Your task to perform on an android device: Open the calendar and show me this week's events? Image 0: 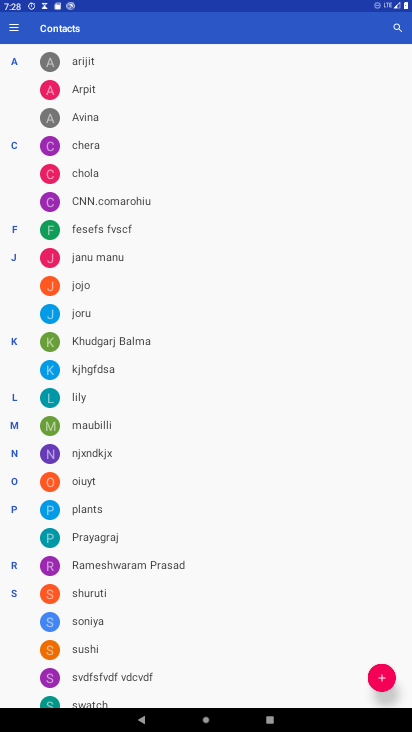
Step 0: press home button
Your task to perform on an android device: Open the calendar and show me this week's events? Image 1: 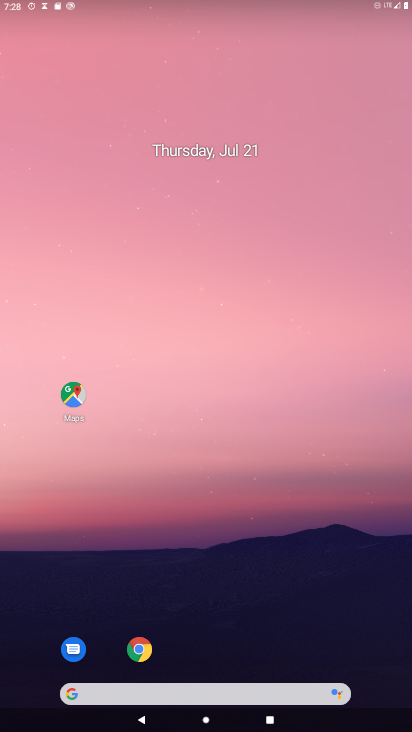
Step 1: drag from (365, 648) to (202, 11)
Your task to perform on an android device: Open the calendar and show me this week's events? Image 2: 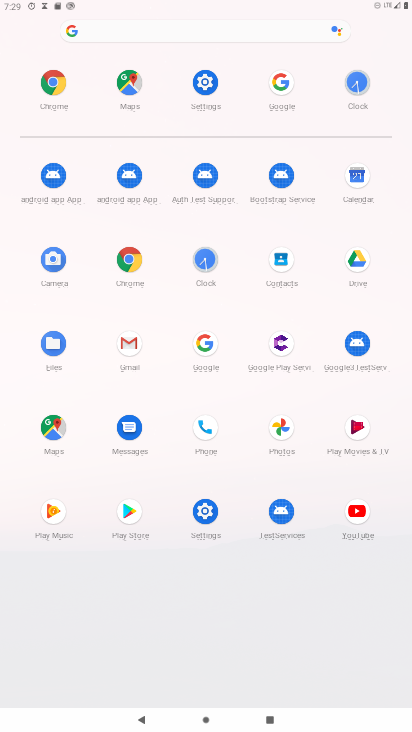
Step 2: click (358, 177)
Your task to perform on an android device: Open the calendar and show me this week's events? Image 3: 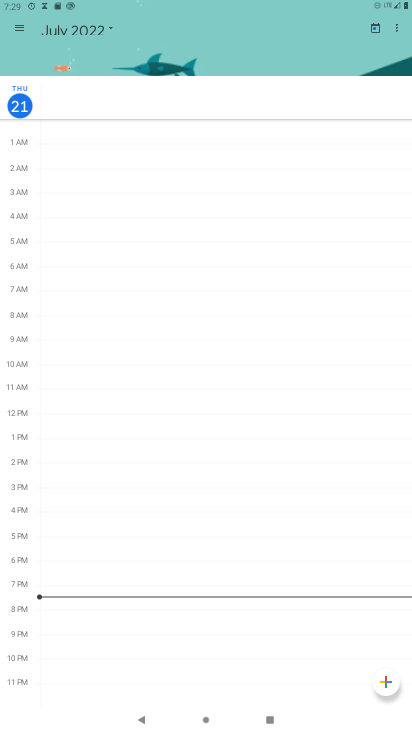
Step 3: task complete